Your task to perform on an android device: turn off data saver in the chrome app Image 0: 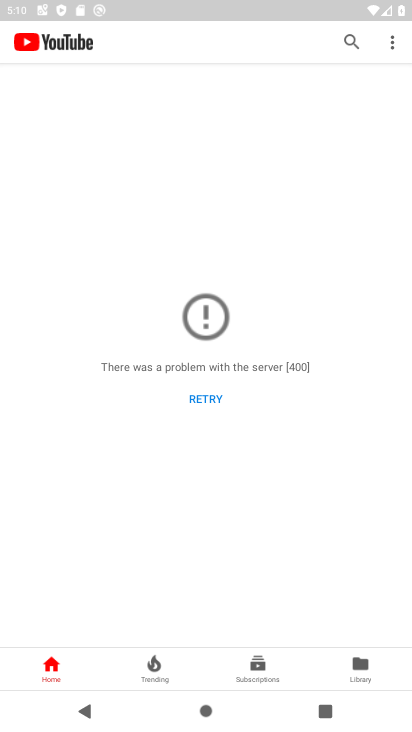
Step 0: press back button
Your task to perform on an android device: turn off data saver in the chrome app Image 1: 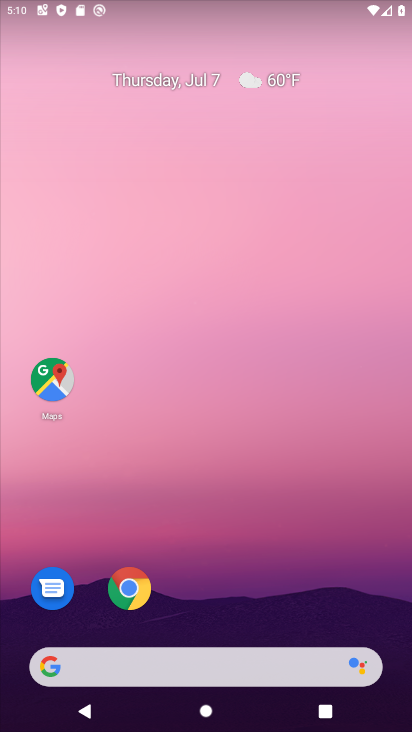
Step 1: click (133, 581)
Your task to perform on an android device: turn off data saver in the chrome app Image 2: 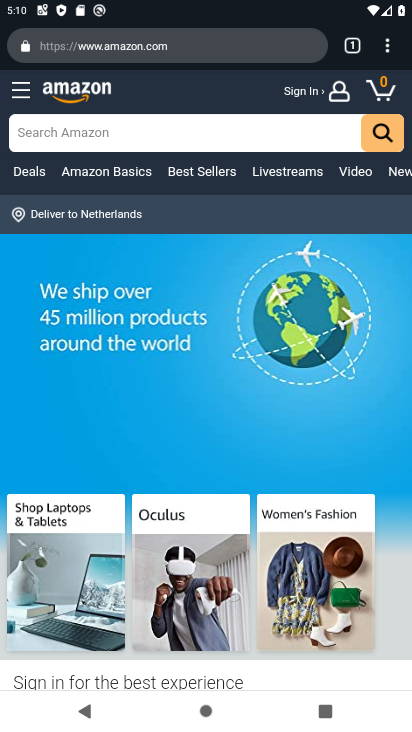
Step 2: drag from (386, 49) to (259, 545)
Your task to perform on an android device: turn off data saver in the chrome app Image 3: 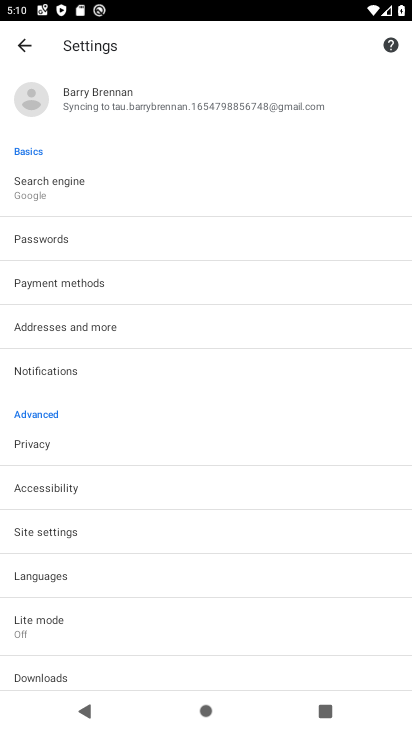
Step 3: click (78, 625)
Your task to perform on an android device: turn off data saver in the chrome app Image 4: 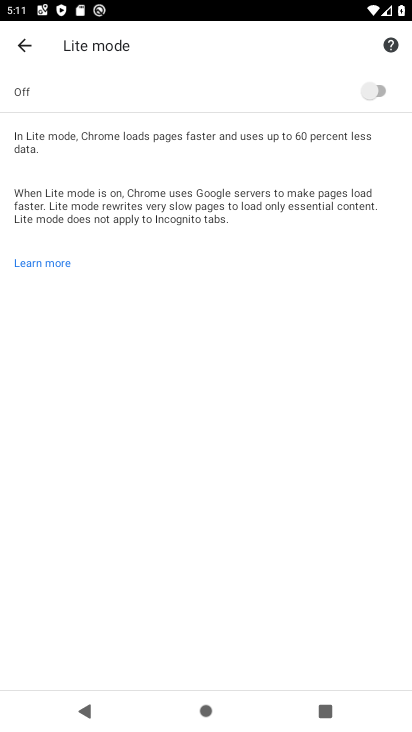
Step 4: task complete